Your task to perform on an android device: add a contact Image 0: 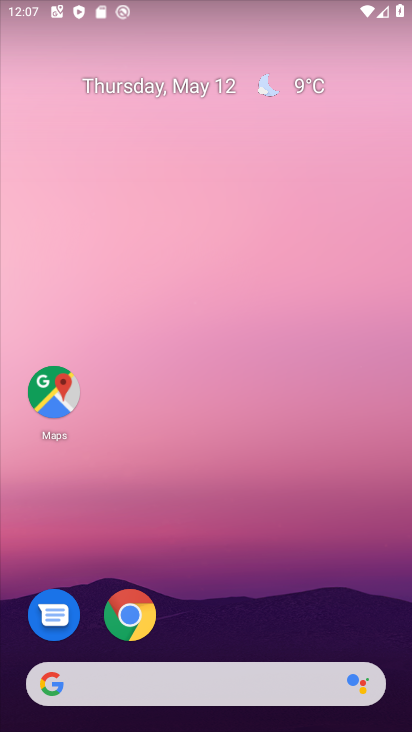
Step 0: drag from (245, 485) to (205, 101)
Your task to perform on an android device: add a contact Image 1: 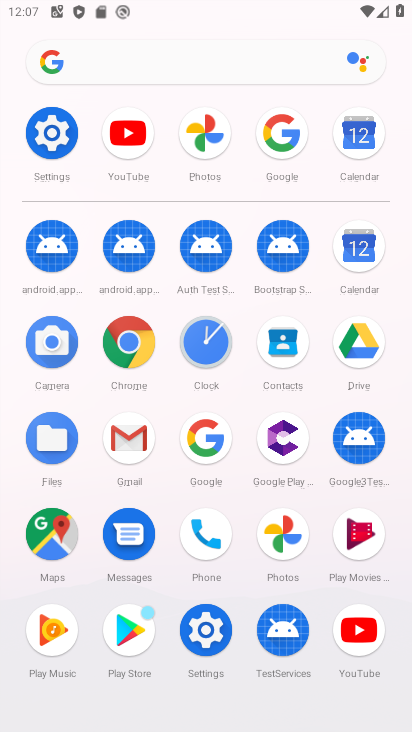
Step 1: click (267, 344)
Your task to perform on an android device: add a contact Image 2: 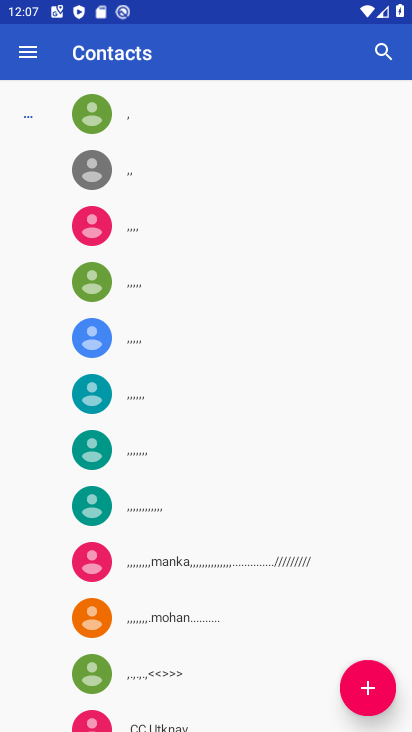
Step 2: click (362, 697)
Your task to perform on an android device: add a contact Image 3: 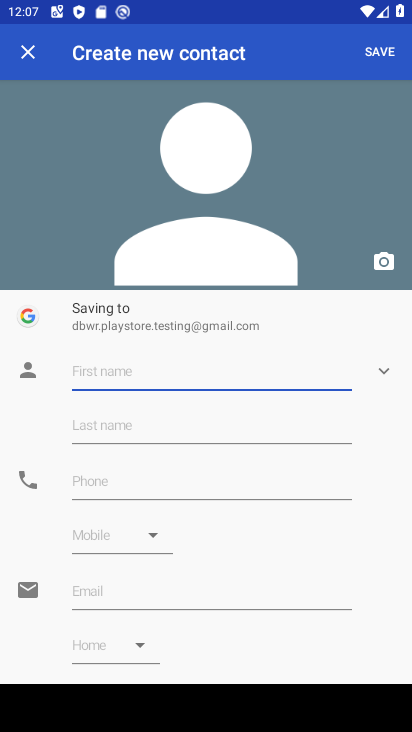
Step 3: click (258, 376)
Your task to perform on an android device: add a contact Image 4: 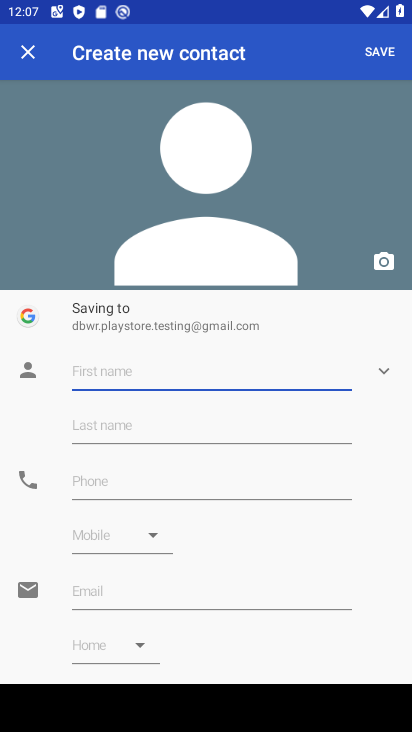
Step 4: type "mmmnb"
Your task to perform on an android device: add a contact Image 5: 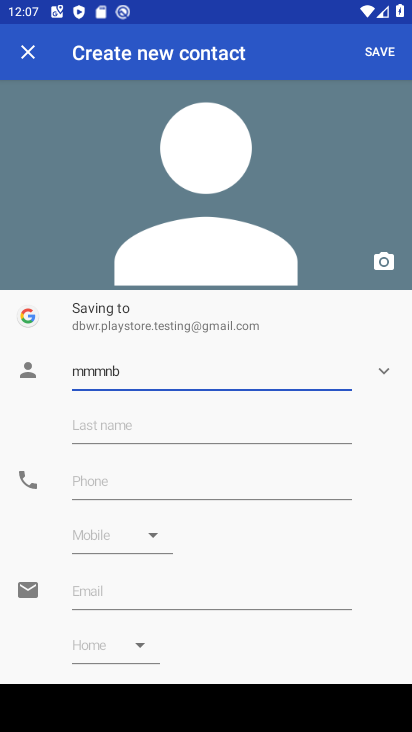
Step 5: click (369, 57)
Your task to perform on an android device: add a contact Image 6: 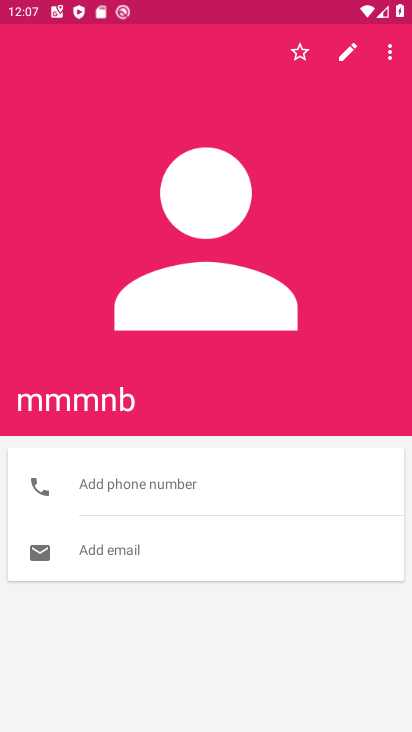
Step 6: task complete